Your task to perform on an android device: turn notification dots on Image 0: 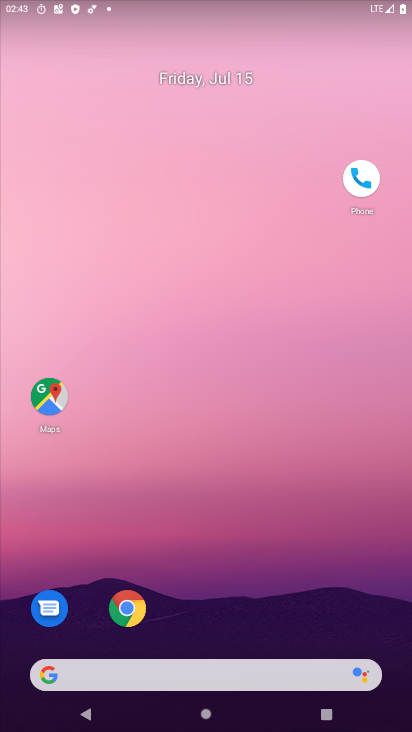
Step 0: drag from (191, 632) to (275, 218)
Your task to perform on an android device: turn notification dots on Image 1: 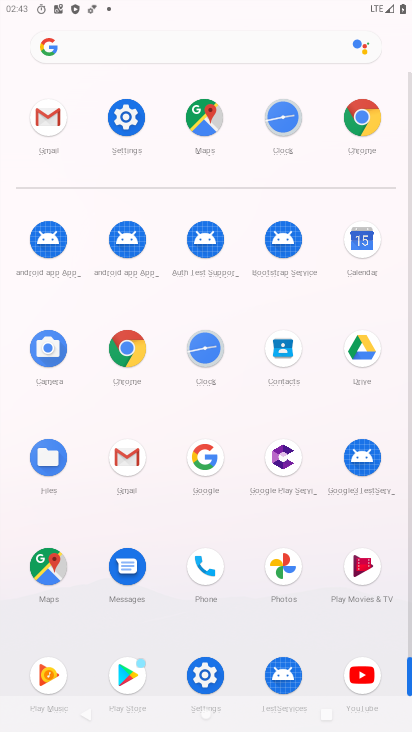
Step 1: drag from (221, 664) to (272, 15)
Your task to perform on an android device: turn notification dots on Image 2: 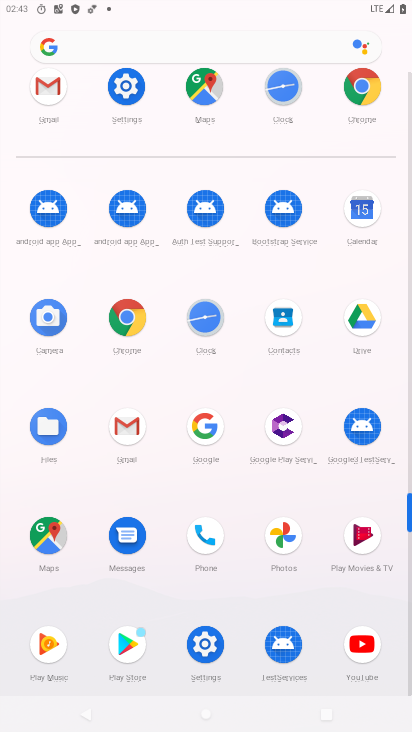
Step 2: click (207, 639)
Your task to perform on an android device: turn notification dots on Image 3: 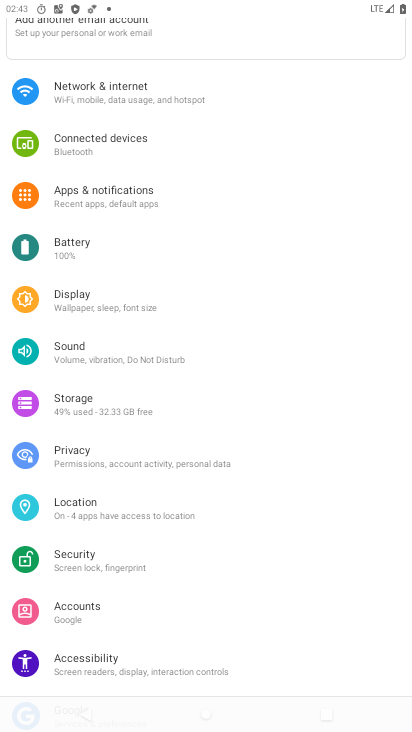
Step 3: click (118, 174)
Your task to perform on an android device: turn notification dots on Image 4: 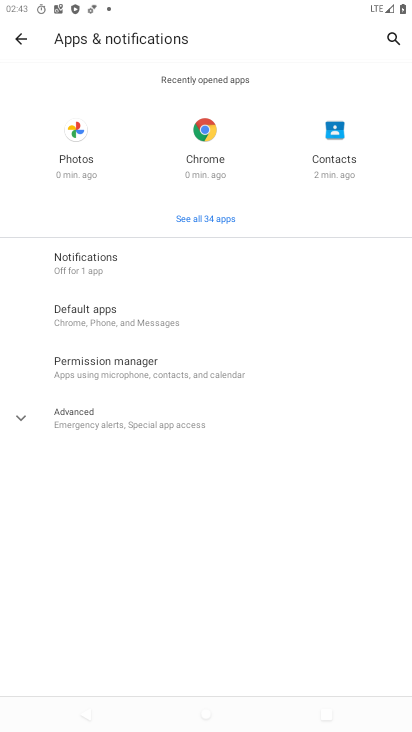
Step 4: click (150, 258)
Your task to perform on an android device: turn notification dots on Image 5: 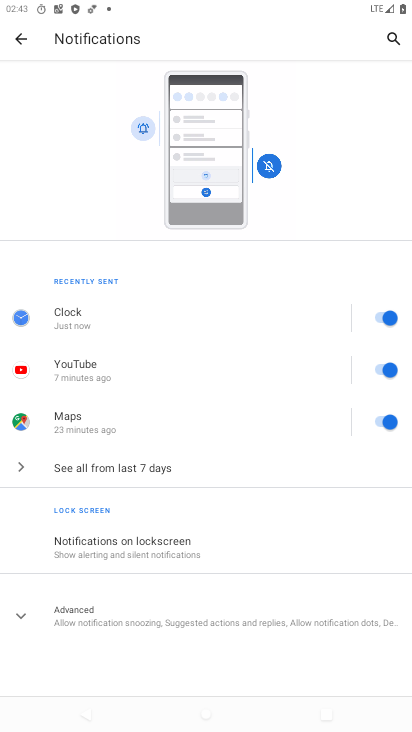
Step 5: drag from (163, 636) to (226, 395)
Your task to perform on an android device: turn notification dots on Image 6: 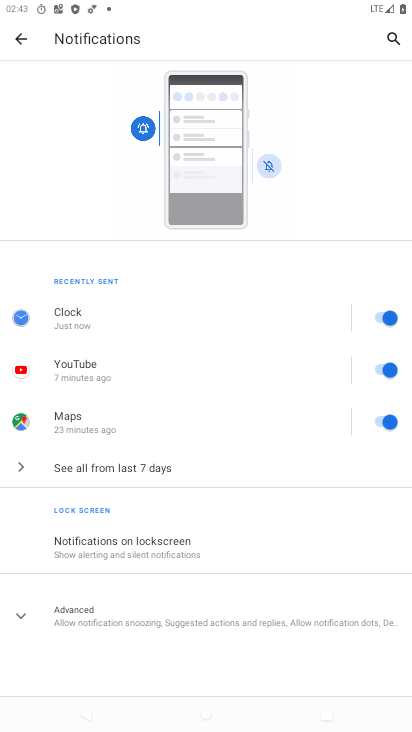
Step 6: click (121, 614)
Your task to perform on an android device: turn notification dots on Image 7: 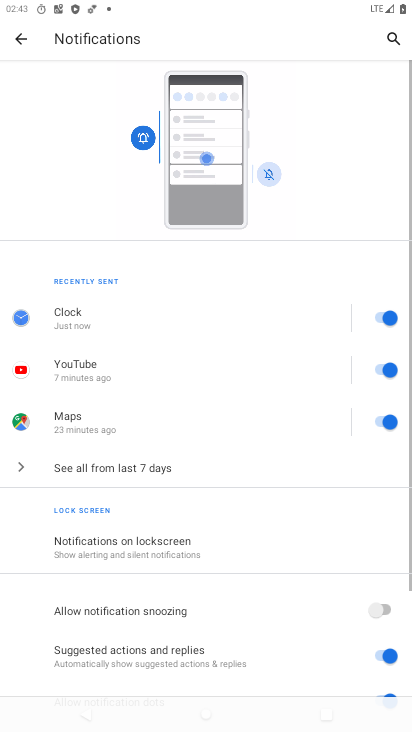
Step 7: task complete